Your task to perform on an android device: When is my next meeting? Image 0: 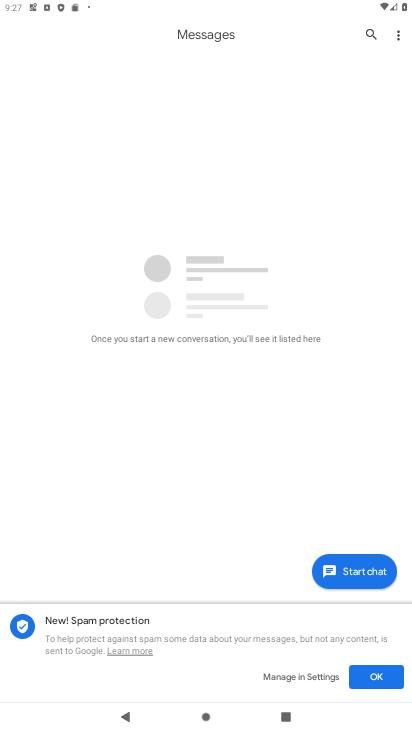
Step 0: press home button
Your task to perform on an android device: When is my next meeting? Image 1: 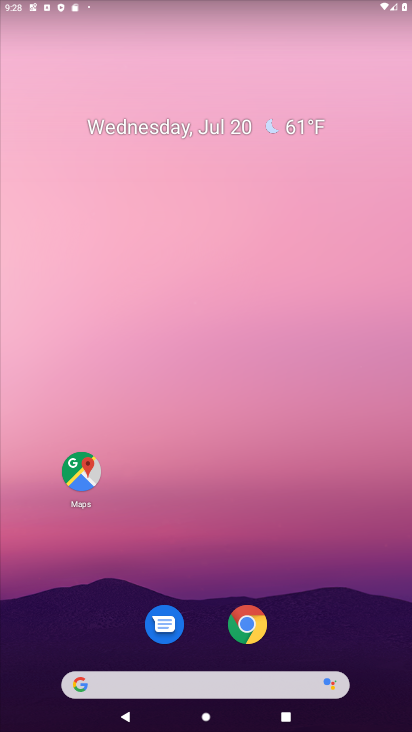
Step 1: drag from (215, 563) to (256, 184)
Your task to perform on an android device: When is my next meeting? Image 2: 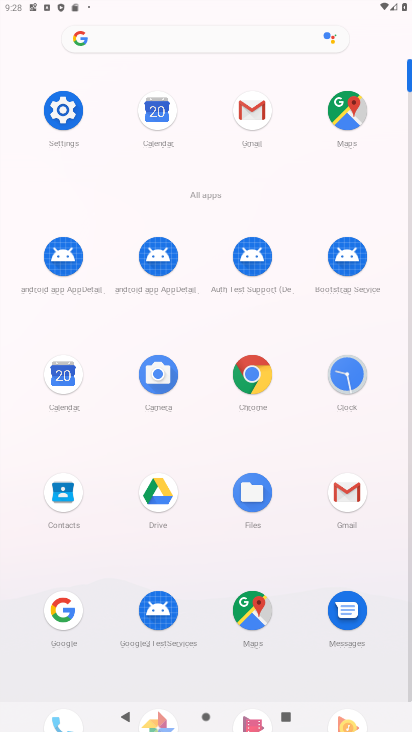
Step 2: click (63, 378)
Your task to perform on an android device: When is my next meeting? Image 3: 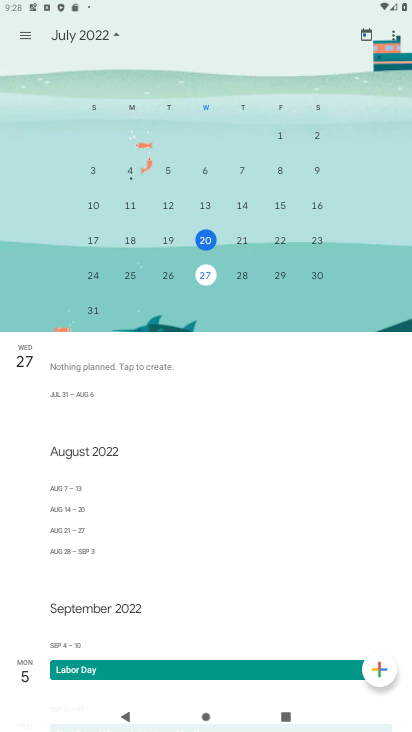
Step 3: click (314, 253)
Your task to perform on an android device: When is my next meeting? Image 4: 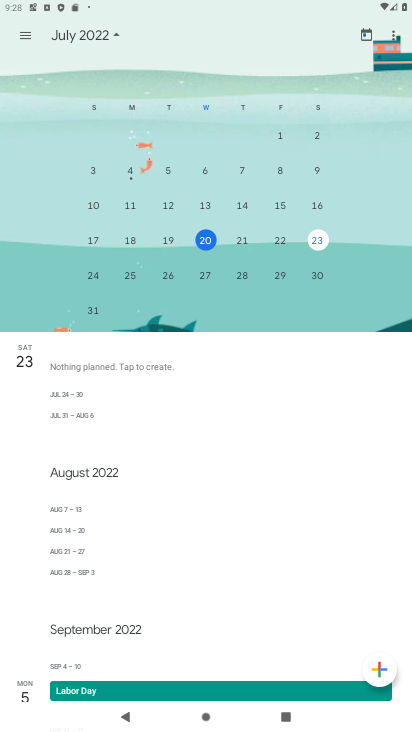
Step 4: click (272, 273)
Your task to perform on an android device: When is my next meeting? Image 5: 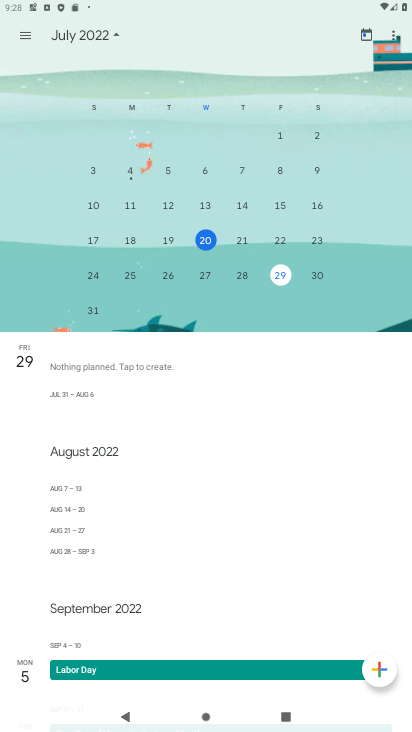
Step 5: task complete